Your task to perform on an android device: turn on translation in the chrome app Image 0: 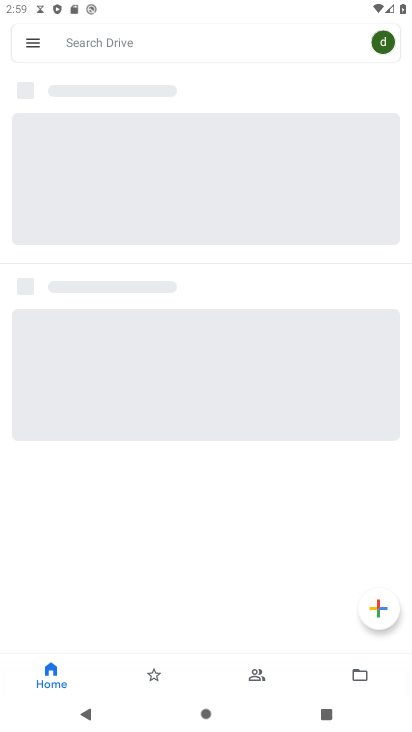
Step 0: press home button
Your task to perform on an android device: turn on translation in the chrome app Image 1: 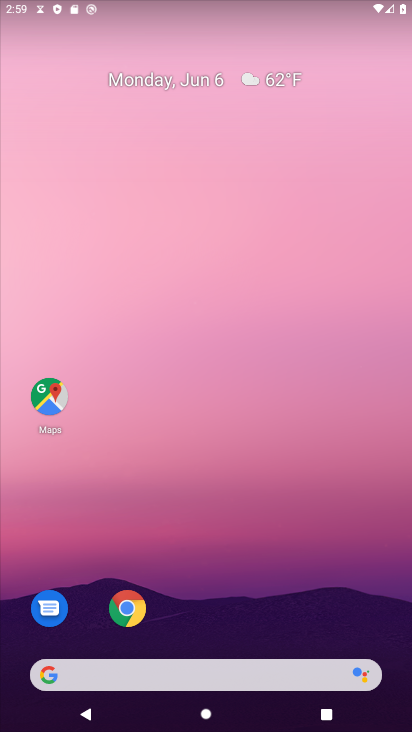
Step 1: click (127, 615)
Your task to perform on an android device: turn on translation in the chrome app Image 2: 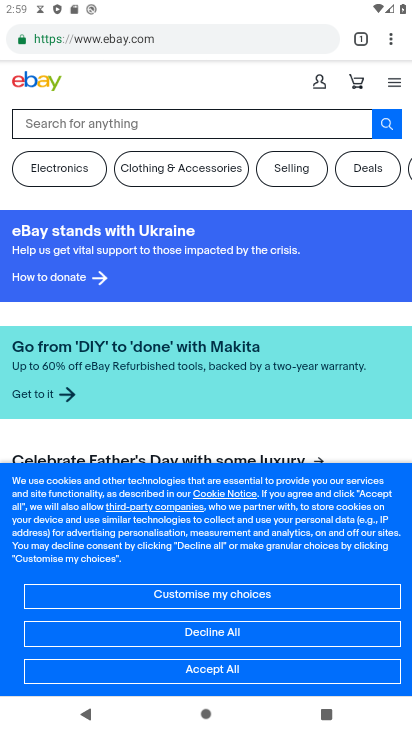
Step 2: click (392, 34)
Your task to perform on an android device: turn on translation in the chrome app Image 3: 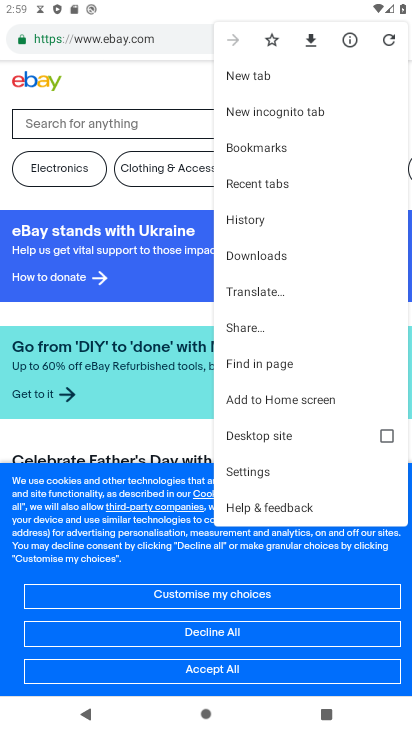
Step 3: click (276, 467)
Your task to perform on an android device: turn on translation in the chrome app Image 4: 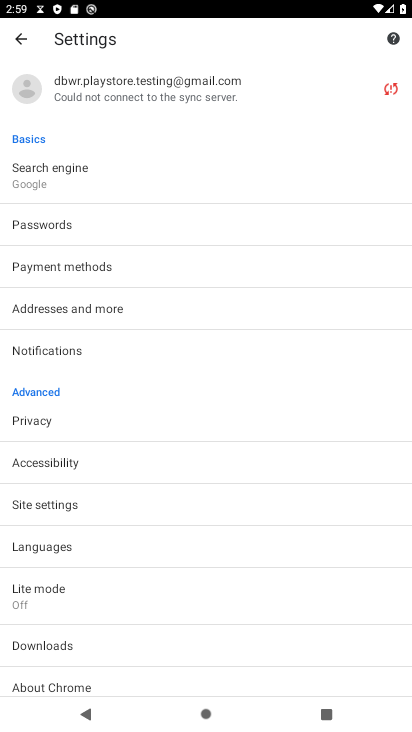
Step 4: click (33, 549)
Your task to perform on an android device: turn on translation in the chrome app Image 5: 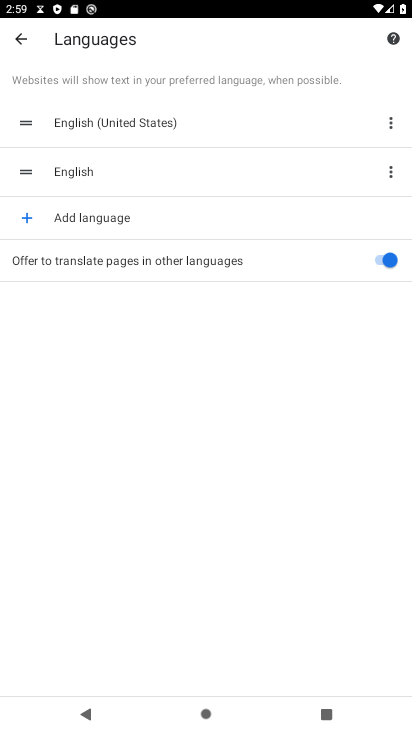
Step 5: task complete